Your task to perform on an android device: Go to Reddit.com Image 0: 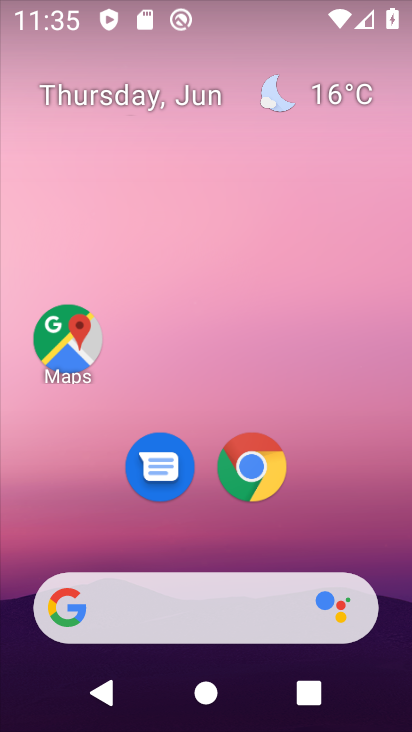
Step 0: click (254, 466)
Your task to perform on an android device: Go to Reddit.com Image 1: 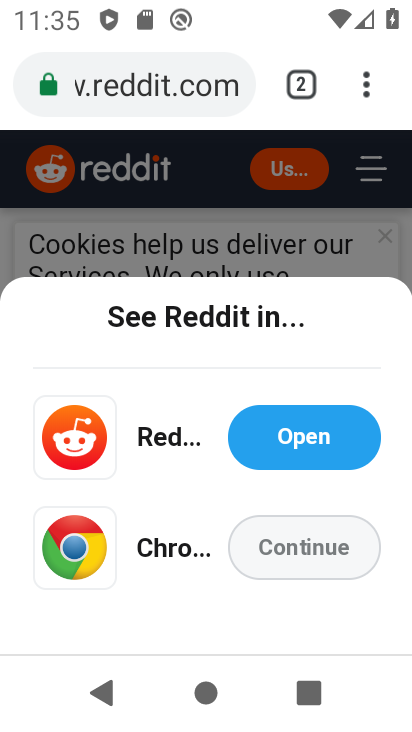
Step 1: task complete